Your task to perform on an android device: manage bookmarks in the chrome app Image 0: 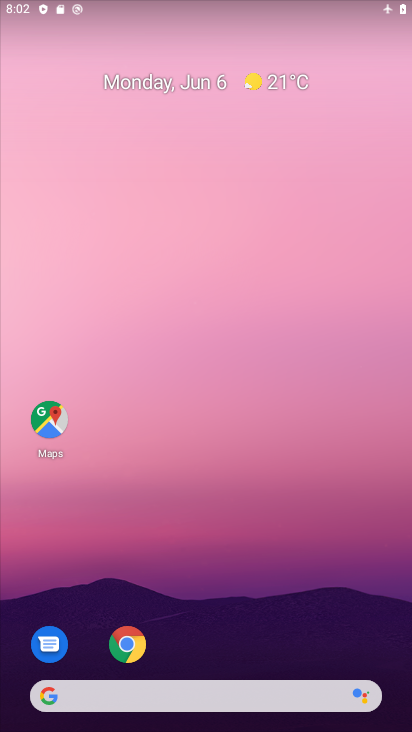
Step 0: drag from (226, 677) to (183, 172)
Your task to perform on an android device: manage bookmarks in the chrome app Image 1: 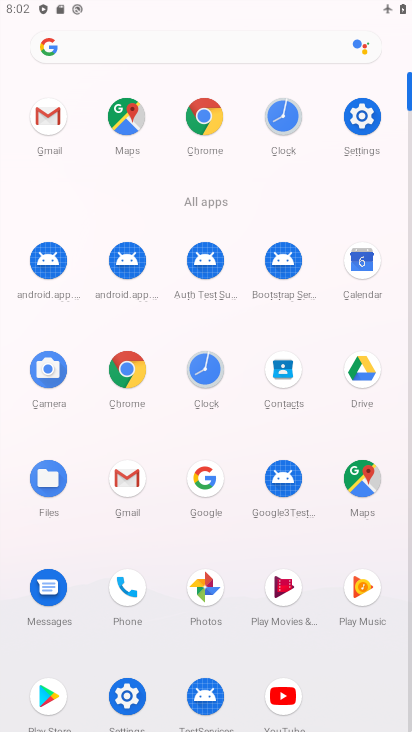
Step 1: click (199, 136)
Your task to perform on an android device: manage bookmarks in the chrome app Image 2: 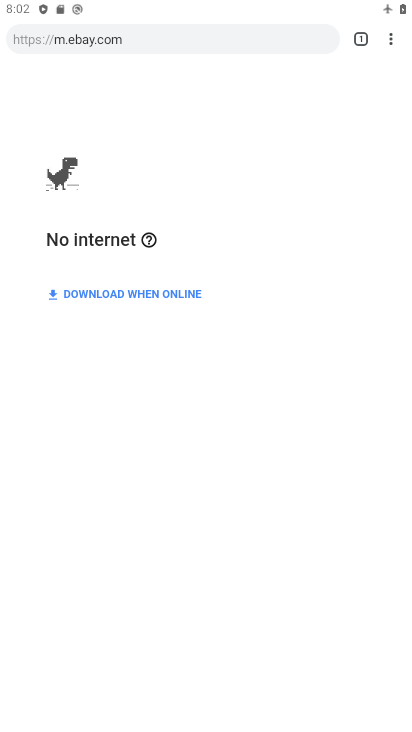
Step 2: task complete